Your task to perform on an android device: choose inbox layout in the gmail app Image 0: 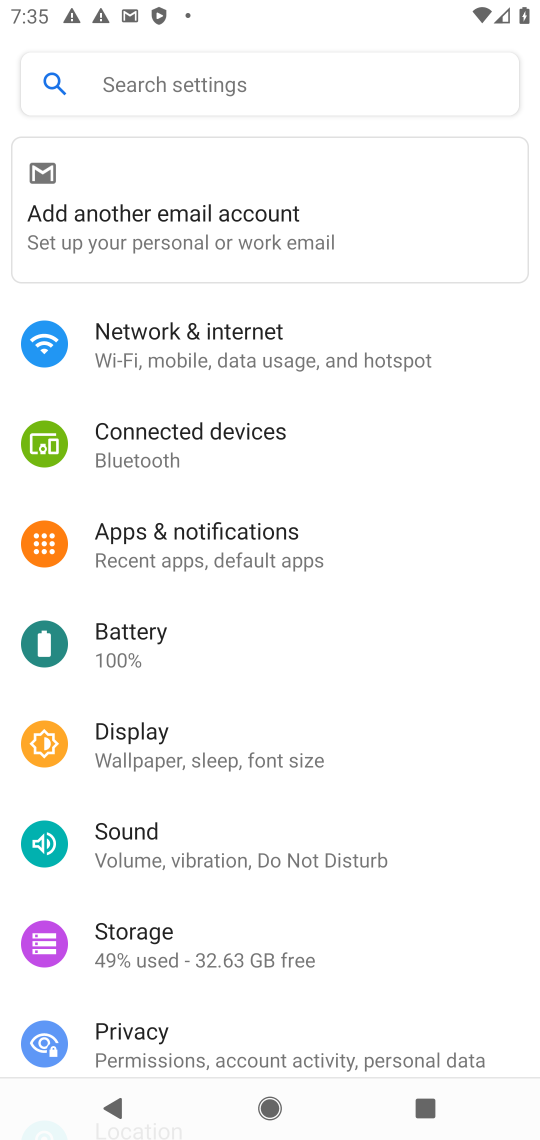
Step 0: press home button
Your task to perform on an android device: choose inbox layout in the gmail app Image 1: 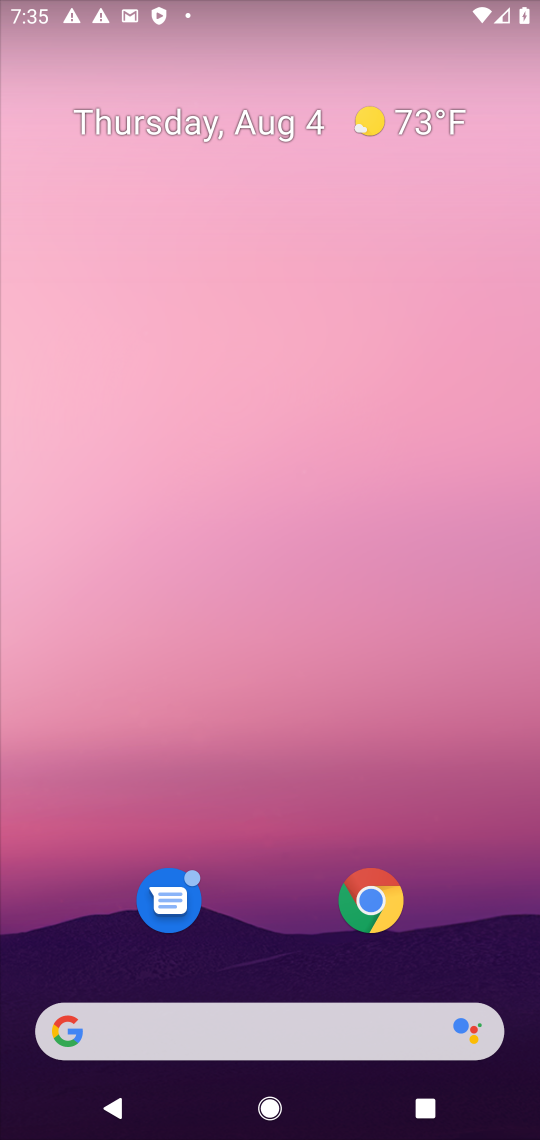
Step 1: drag from (328, 633) to (388, 159)
Your task to perform on an android device: choose inbox layout in the gmail app Image 2: 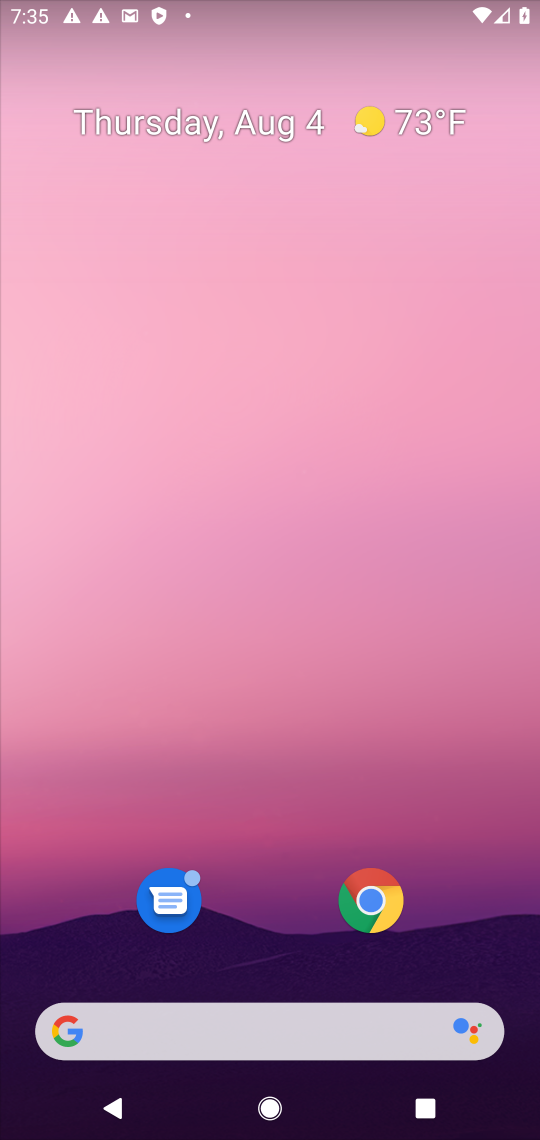
Step 2: drag from (260, 883) to (460, 180)
Your task to perform on an android device: choose inbox layout in the gmail app Image 3: 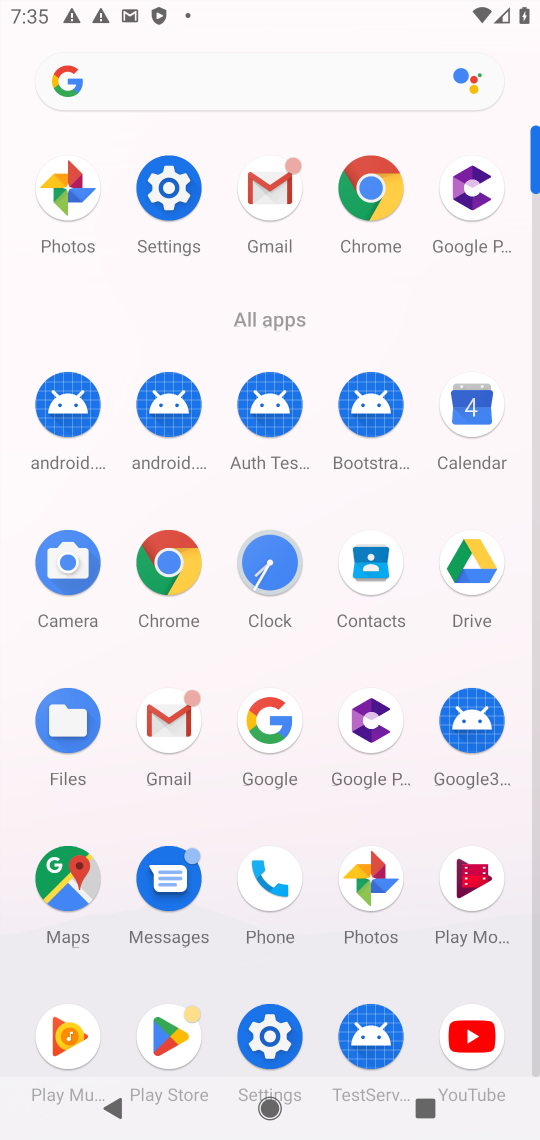
Step 3: click (273, 197)
Your task to perform on an android device: choose inbox layout in the gmail app Image 4: 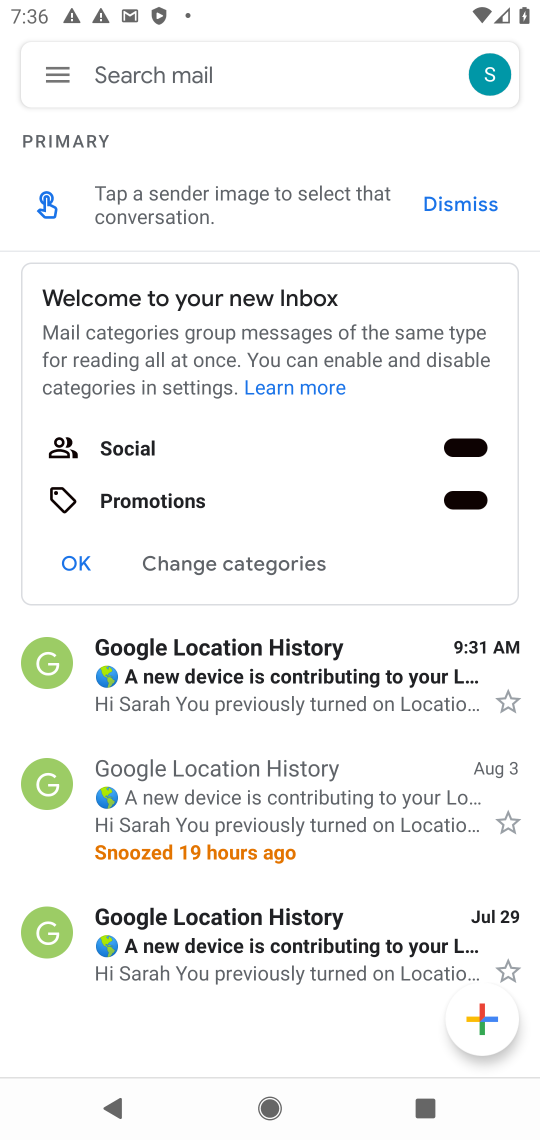
Step 4: click (61, 78)
Your task to perform on an android device: choose inbox layout in the gmail app Image 5: 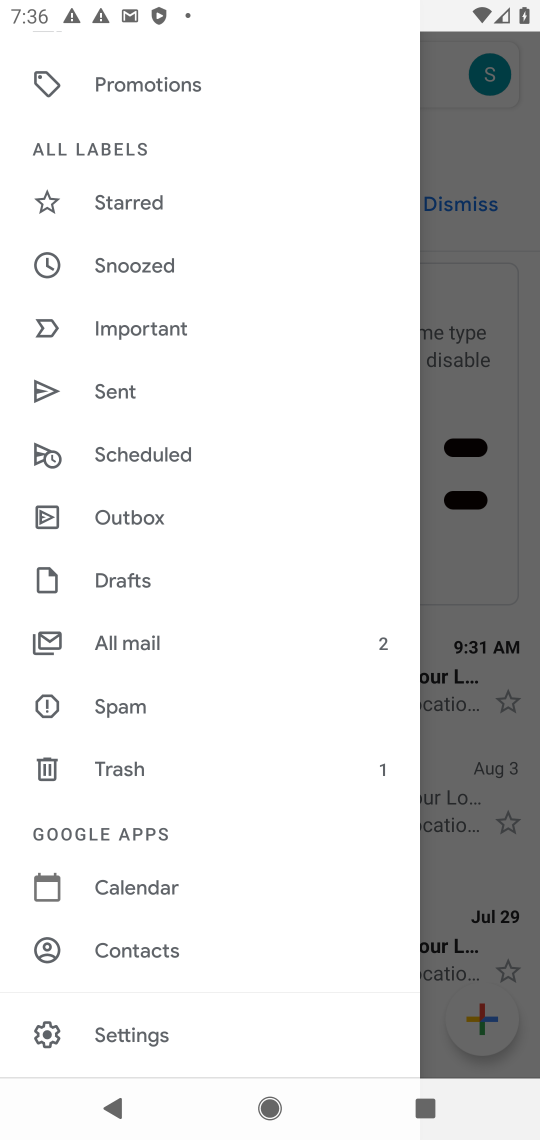
Step 5: click (166, 1036)
Your task to perform on an android device: choose inbox layout in the gmail app Image 6: 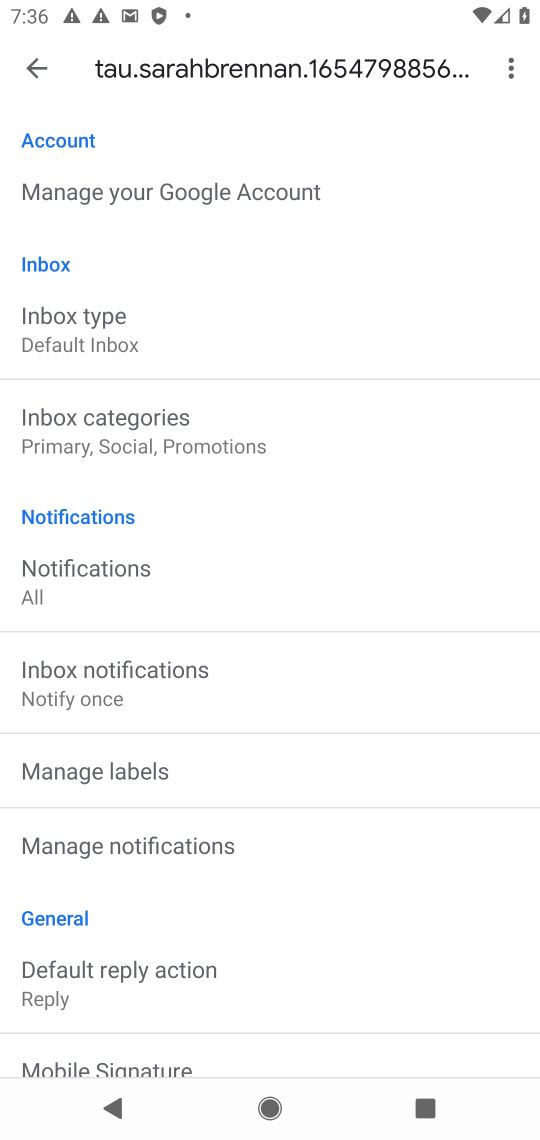
Step 6: drag from (219, 930) to (419, 213)
Your task to perform on an android device: choose inbox layout in the gmail app Image 7: 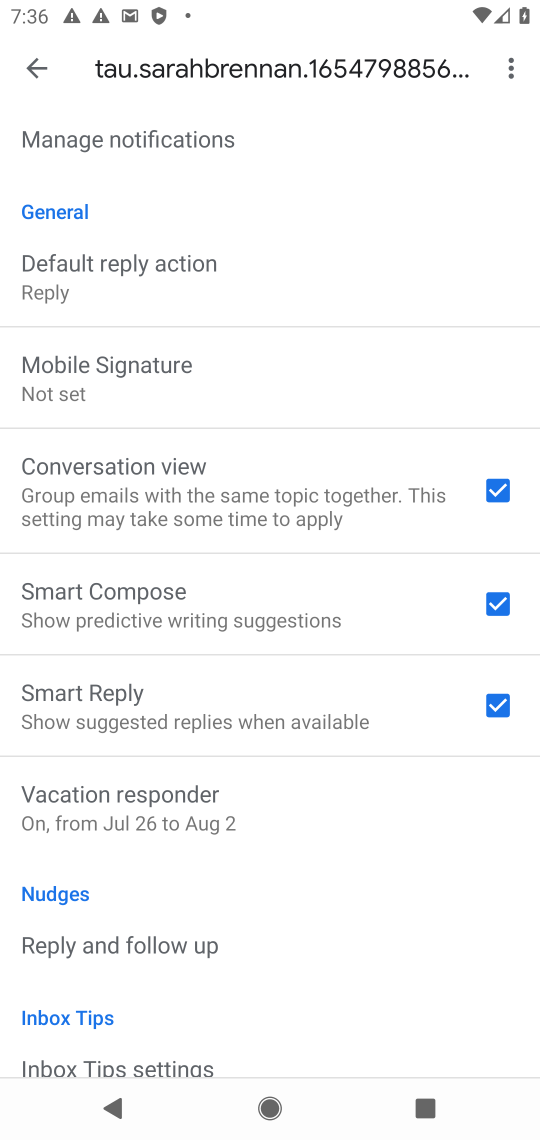
Step 7: drag from (318, 190) to (217, 1019)
Your task to perform on an android device: choose inbox layout in the gmail app Image 8: 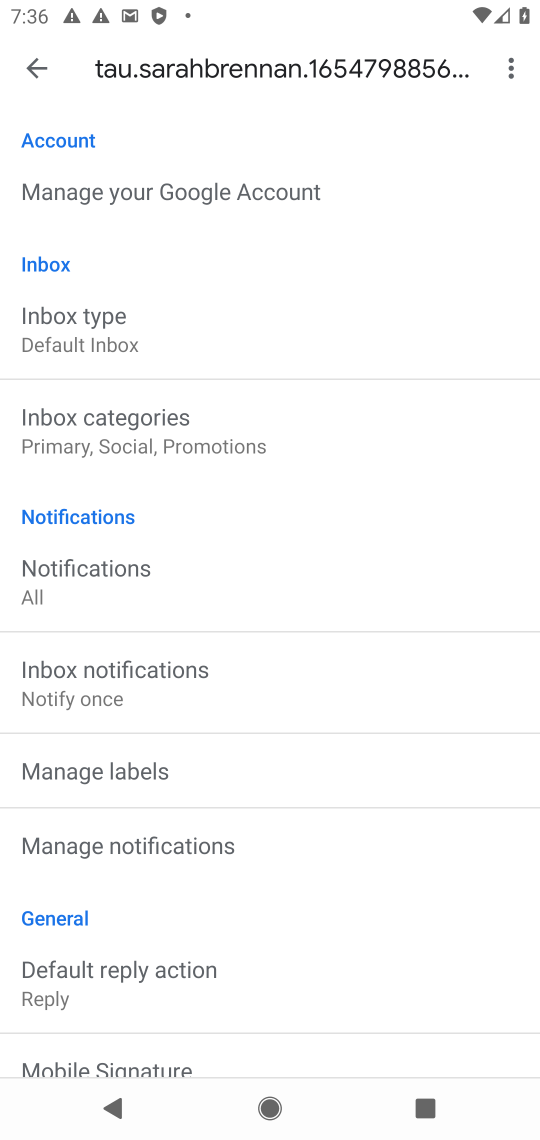
Step 8: click (91, 339)
Your task to perform on an android device: choose inbox layout in the gmail app Image 9: 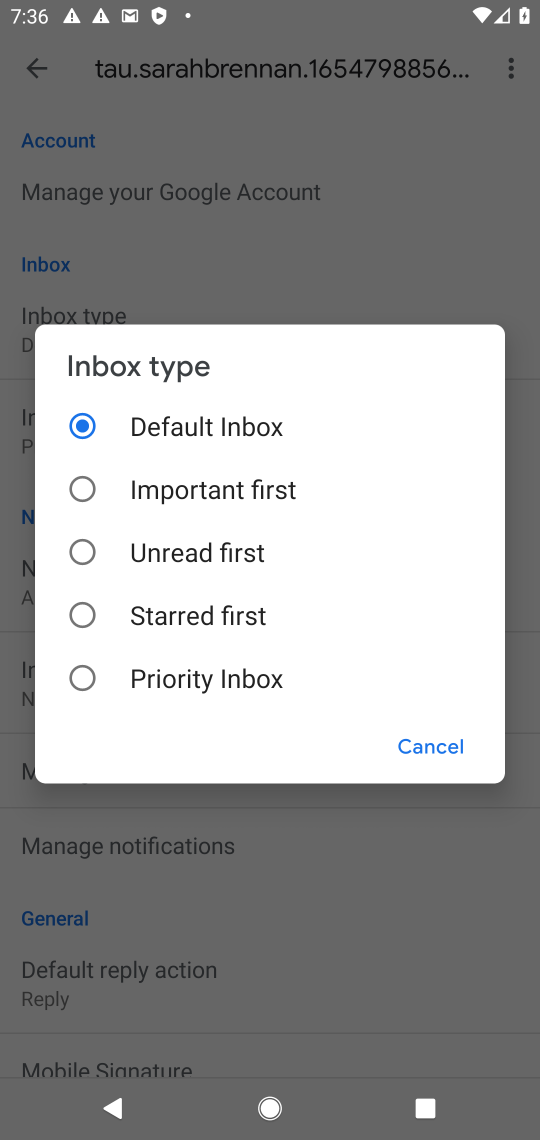
Step 9: click (86, 675)
Your task to perform on an android device: choose inbox layout in the gmail app Image 10: 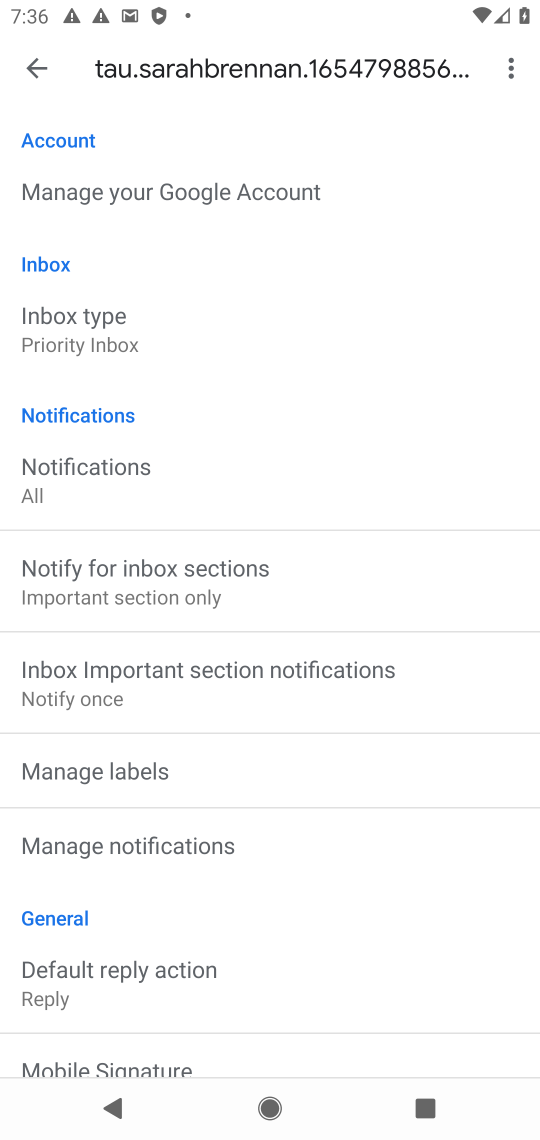
Step 10: task complete